Your task to perform on an android device: Turn off the flashlight Image 0: 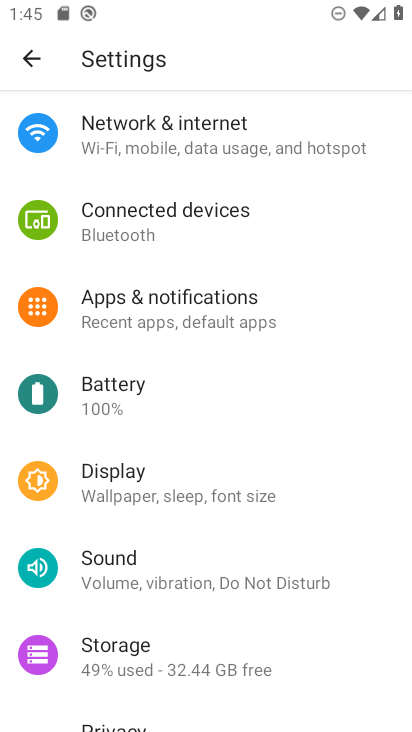
Step 0: press home button
Your task to perform on an android device: Turn off the flashlight Image 1: 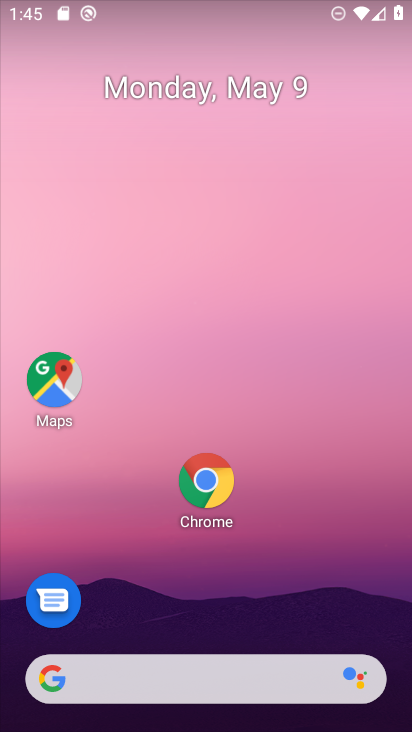
Step 1: task complete